Your task to perform on an android device: Go to Google maps Image 0: 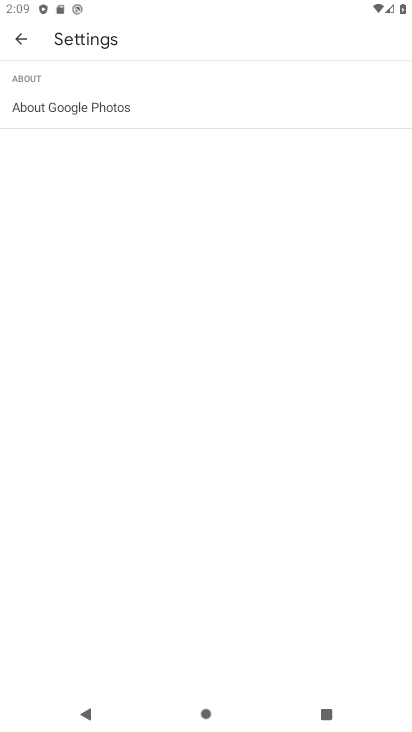
Step 0: press home button
Your task to perform on an android device: Go to Google maps Image 1: 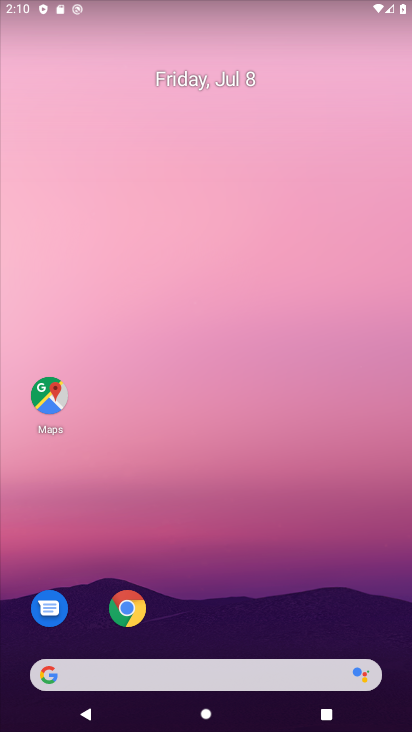
Step 1: click (44, 400)
Your task to perform on an android device: Go to Google maps Image 2: 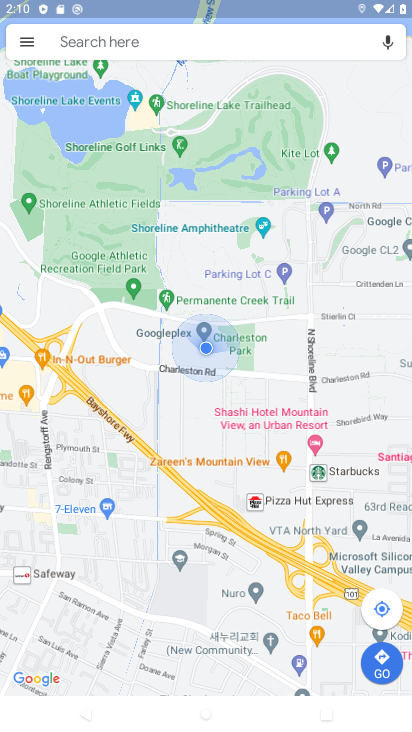
Step 2: task complete